Your task to perform on an android device: clear history in the chrome app Image 0: 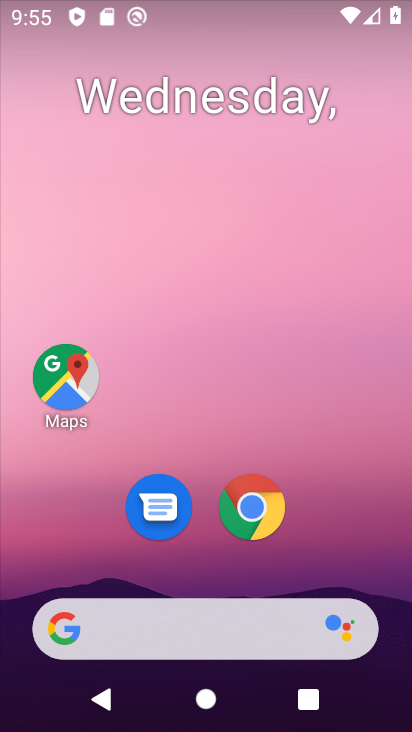
Step 0: drag from (223, 644) to (391, 110)
Your task to perform on an android device: clear history in the chrome app Image 1: 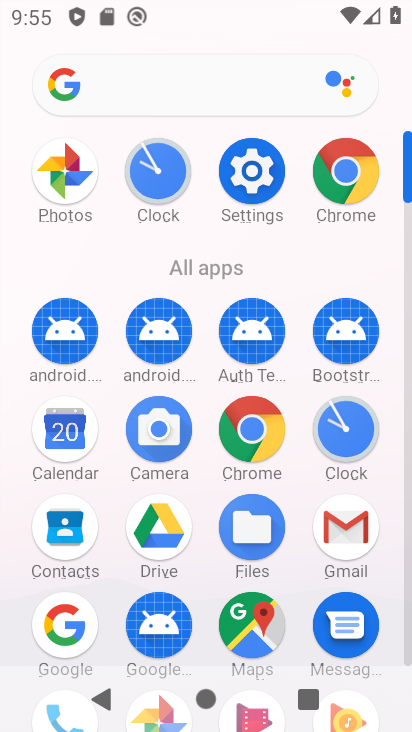
Step 1: click (330, 175)
Your task to perform on an android device: clear history in the chrome app Image 2: 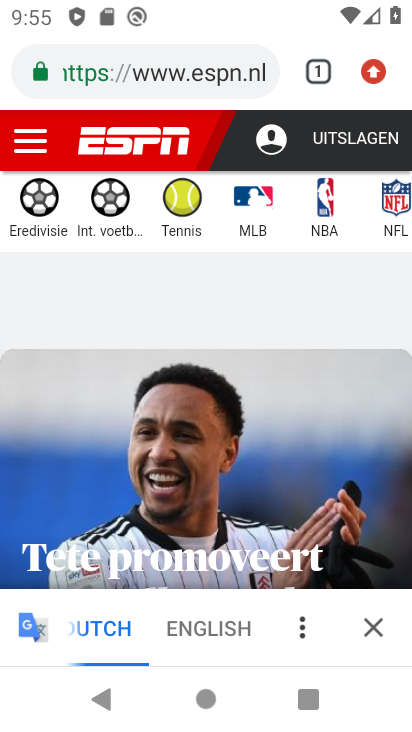
Step 2: click (371, 77)
Your task to perform on an android device: clear history in the chrome app Image 3: 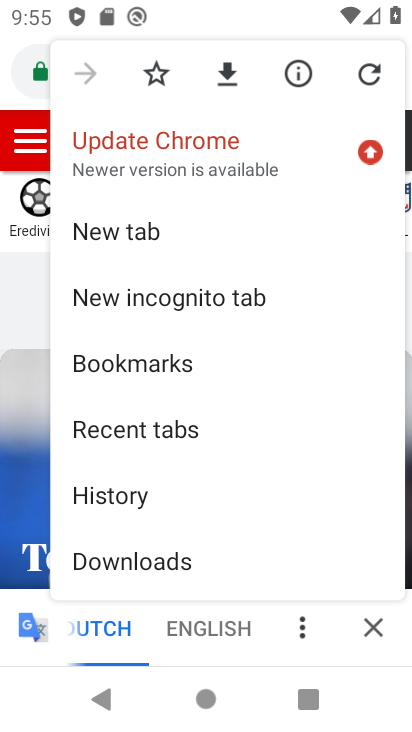
Step 3: click (115, 491)
Your task to perform on an android device: clear history in the chrome app Image 4: 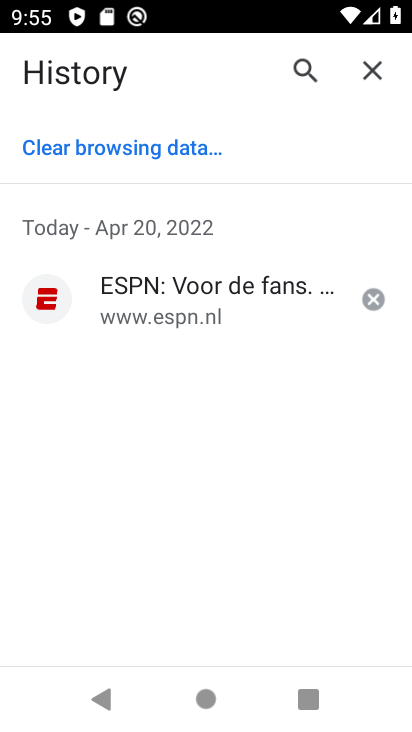
Step 4: click (145, 153)
Your task to perform on an android device: clear history in the chrome app Image 5: 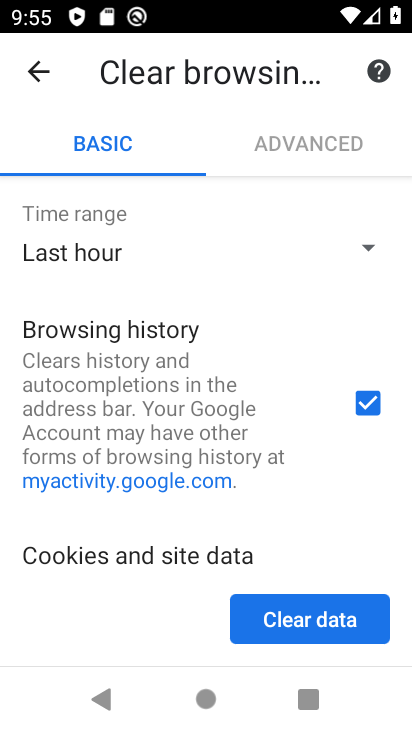
Step 5: click (288, 616)
Your task to perform on an android device: clear history in the chrome app Image 6: 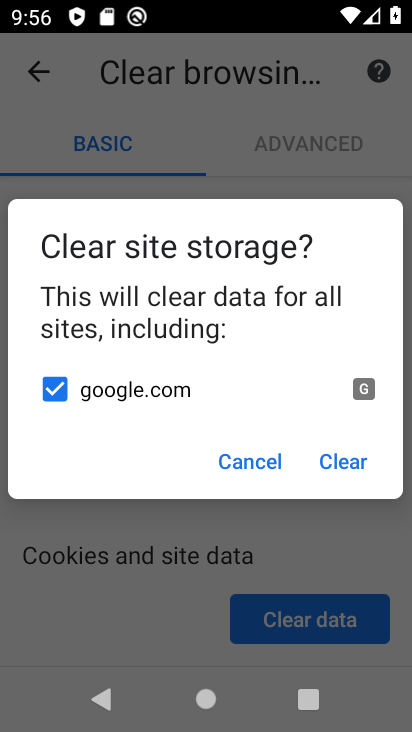
Step 6: task complete